Your task to perform on an android device: turn on bluetooth scan Image 0: 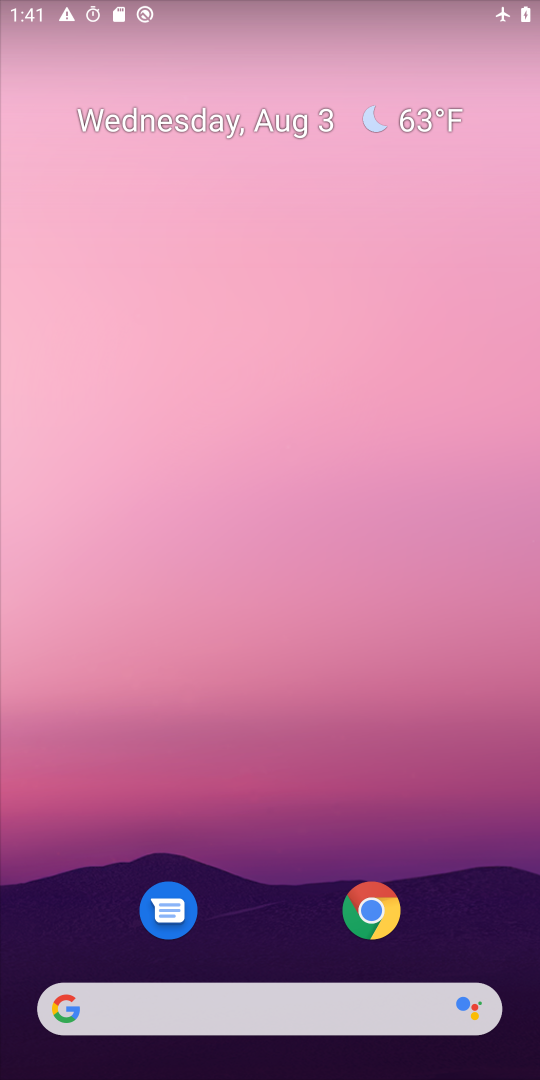
Step 0: drag from (335, 374) to (349, 16)
Your task to perform on an android device: turn on bluetooth scan Image 1: 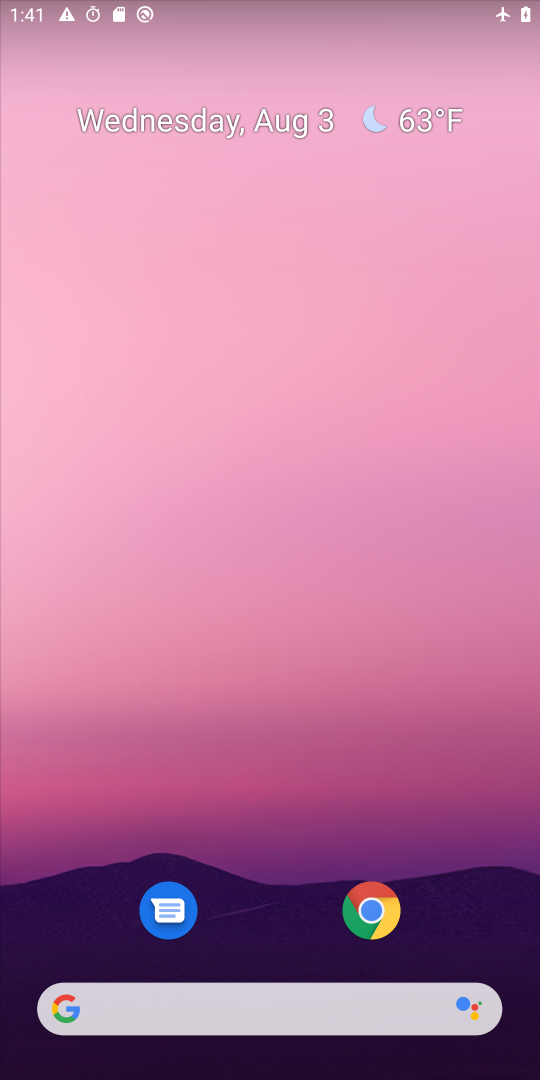
Step 1: drag from (267, 1005) to (381, 39)
Your task to perform on an android device: turn on bluetooth scan Image 2: 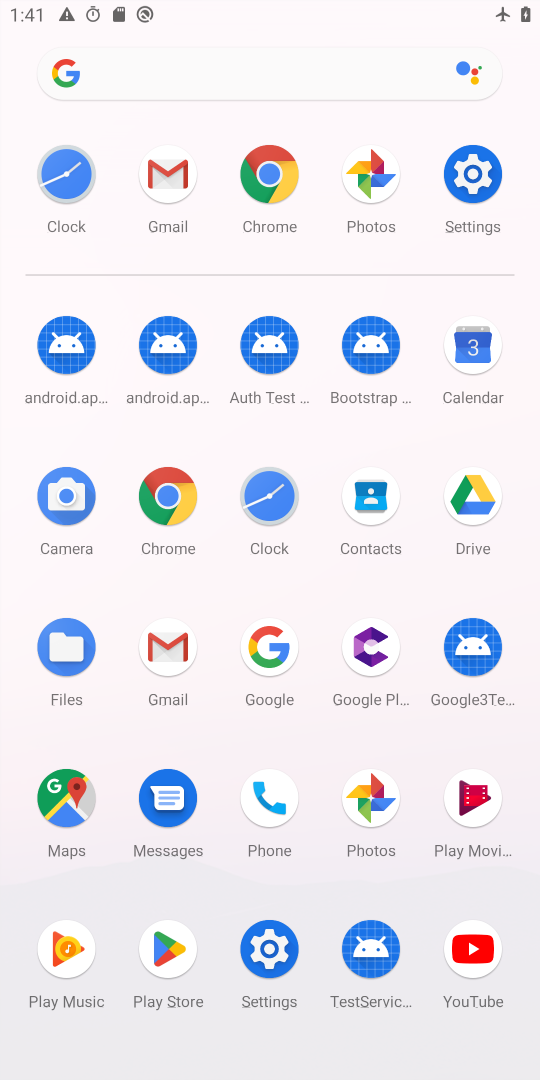
Step 2: click (476, 176)
Your task to perform on an android device: turn on bluetooth scan Image 3: 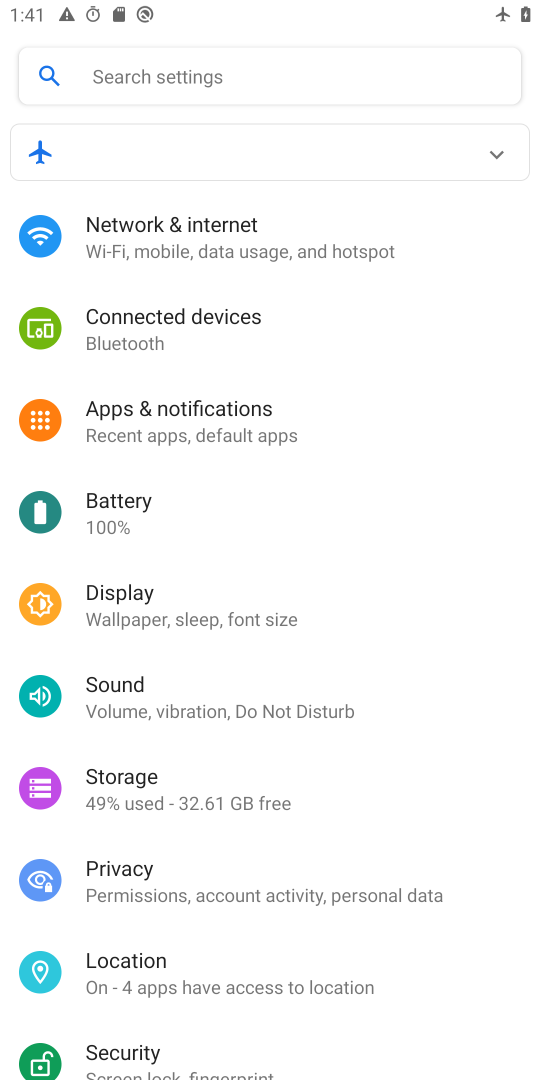
Step 3: drag from (286, 975) to (309, 518)
Your task to perform on an android device: turn on bluetooth scan Image 4: 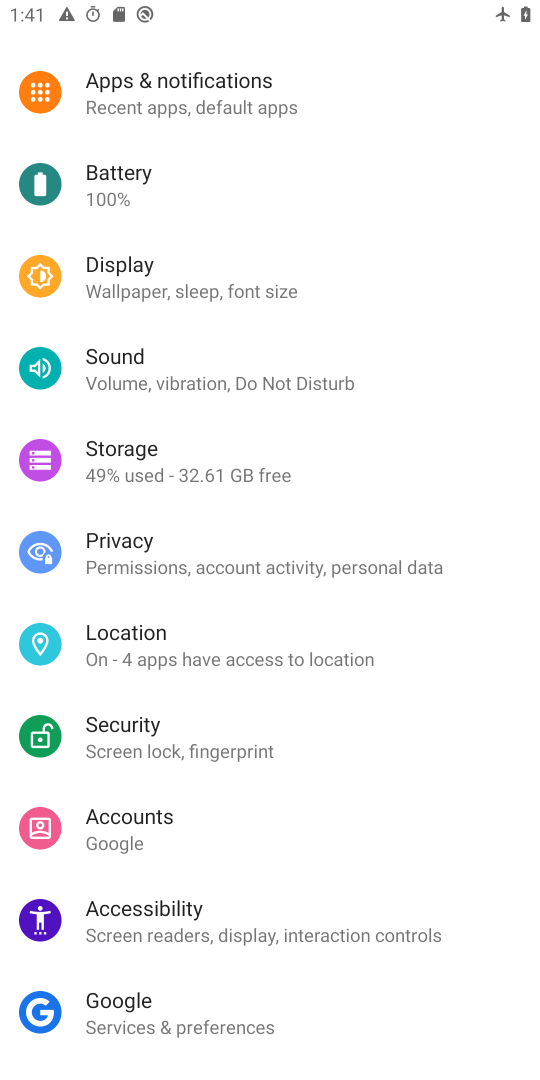
Step 4: click (230, 650)
Your task to perform on an android device: turn on bluetooth scan Image 5: 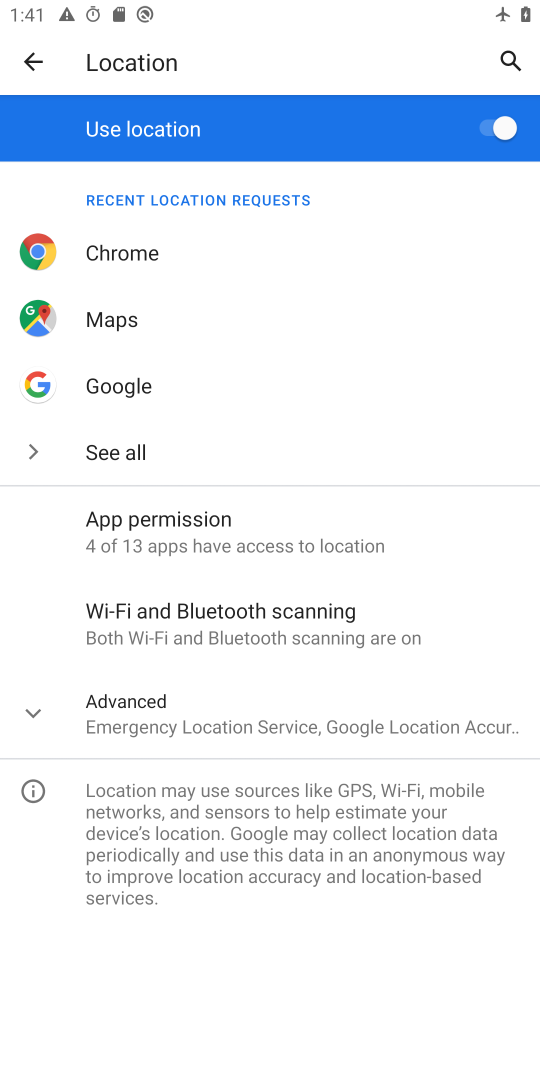
Step 5: click (303, 719)
Your task to perform on an android device: turn on bluetooth scan Image 6: 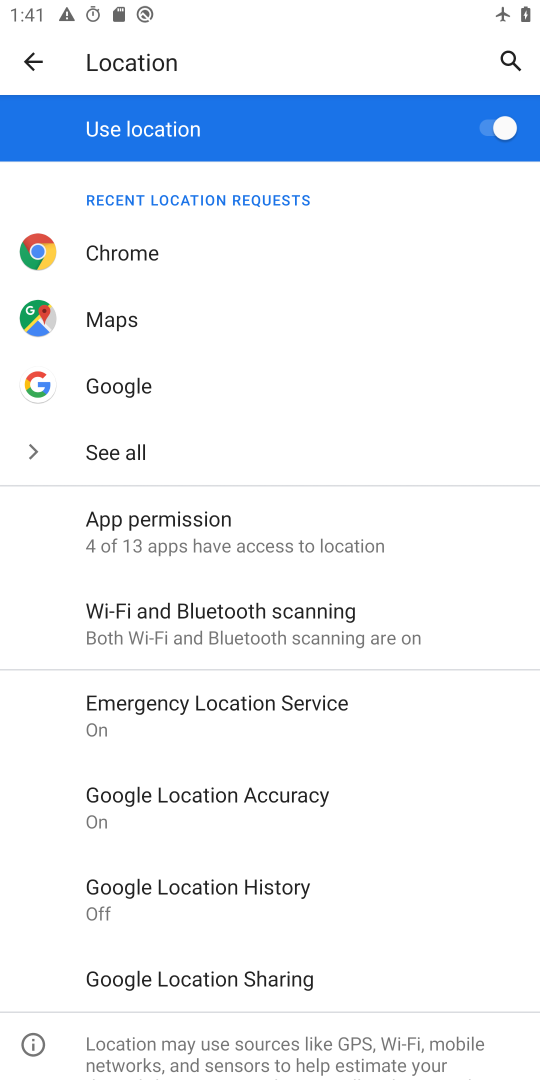
Step 6: click (308, 634)
Your task to perform on an android device: turn on bluetooth scan Image 7: 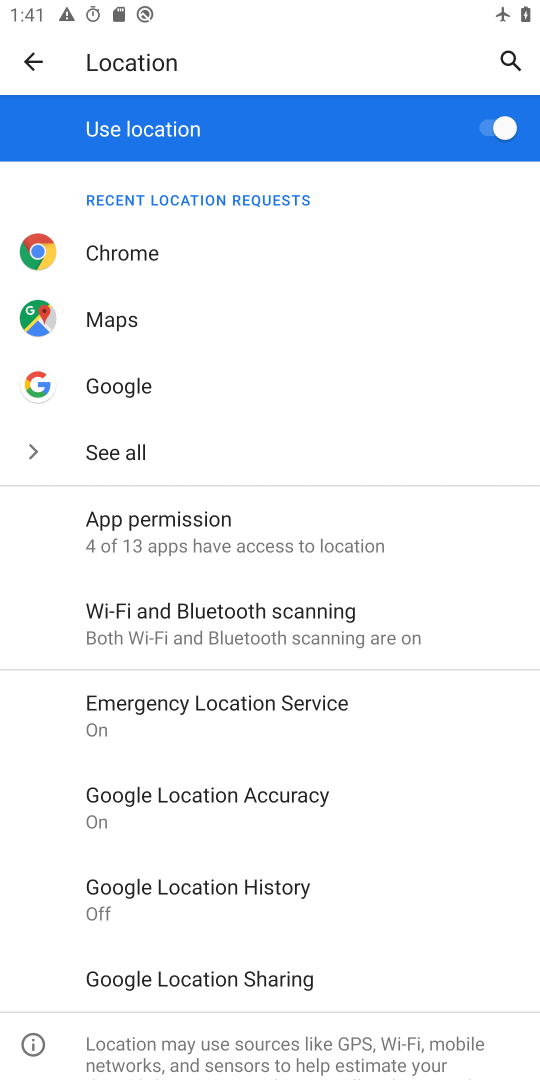
Step 7: click (308, 634)
Your task to perform on an android device: turn on bluetooth scan Image 8: 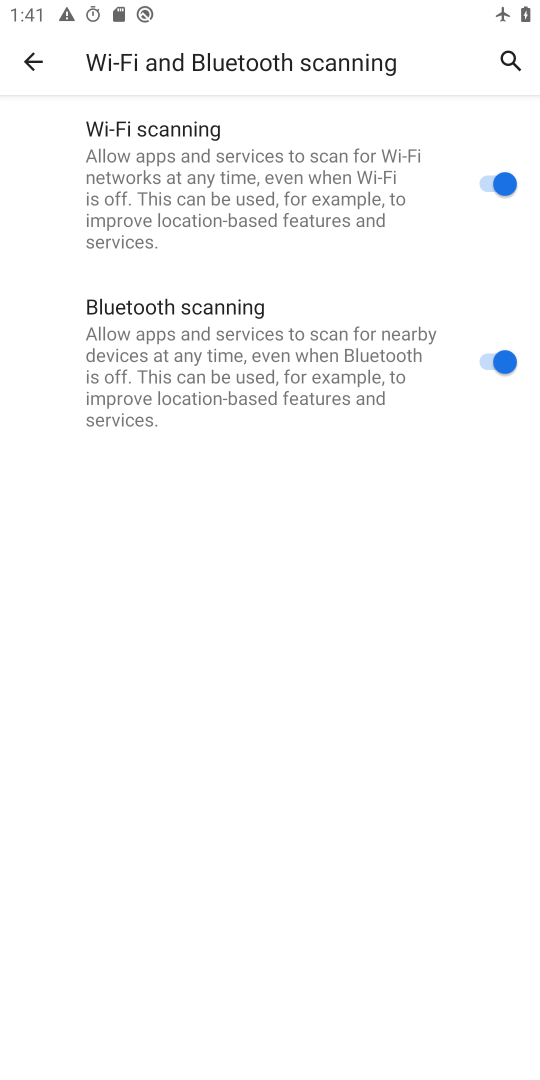
Step 8: task complete